Your task to perform on an android device: Show me popular videos on Youtube Image 0: 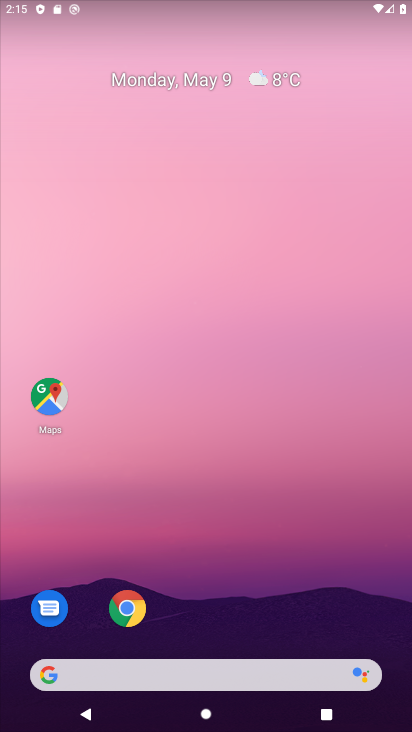
Step 0: drag from (148, 633) to (142, 163)
Your task to perform on an android device: Show me popular videos on Youtube Image 1: 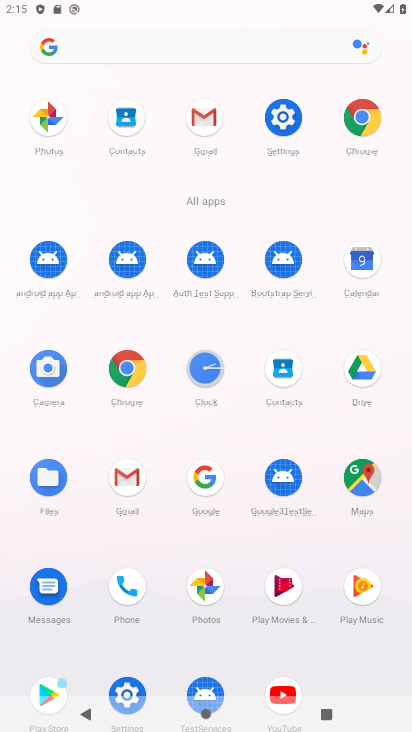
Step 1: click (274, 688)
Your task to perform on an android device: Show me popular videos on Youtube Image 2: 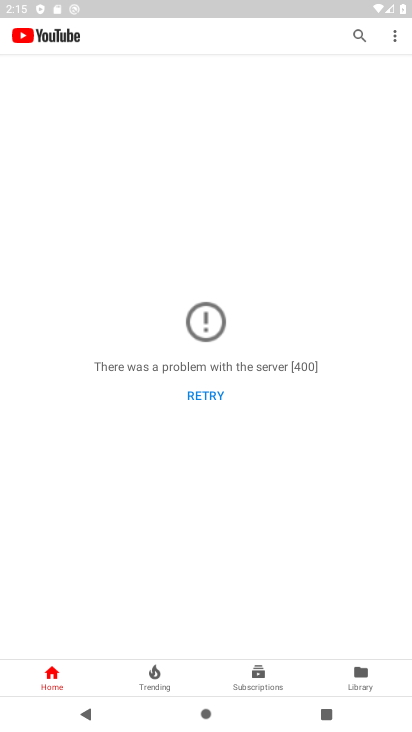
Step 2: task complete